Your task to perform on an android device: check android version Image 0: 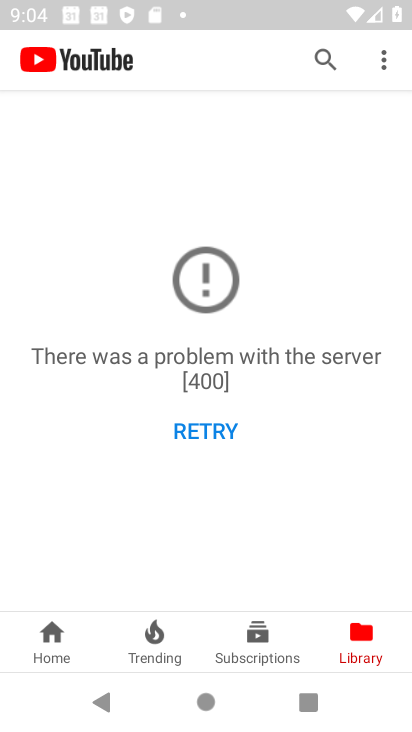
Step 0: press home button
Your task to perform on an android device: check android version Image 1: 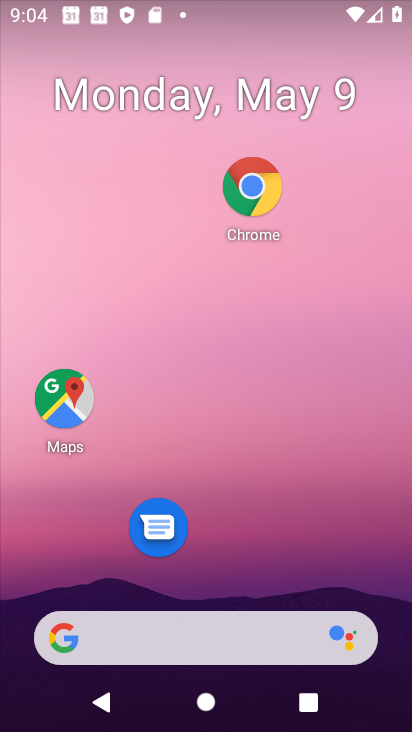
Step 1: drag from (204, 588) to (212, 22)
Your task to perform on an android device: check android version Image 2: 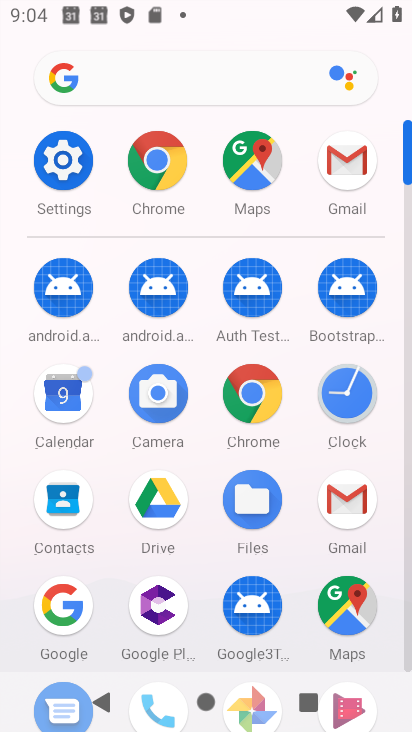
Step 2: click (58, 154)
Your task to perform on an android device: check android version Image 3: 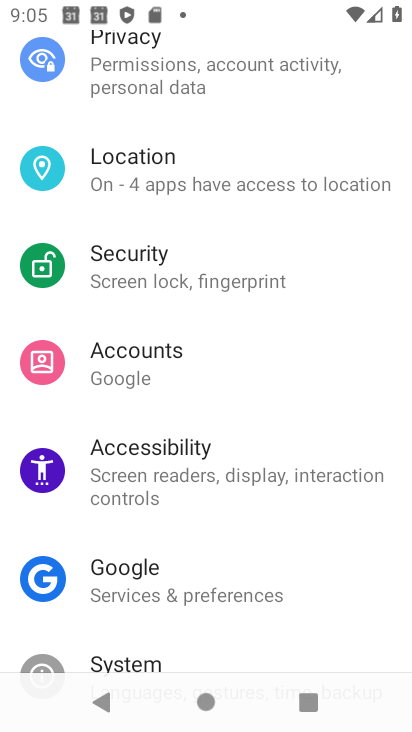
Step 3: click (196, 622)
Your task to perform on an android device: check android version Image 4: 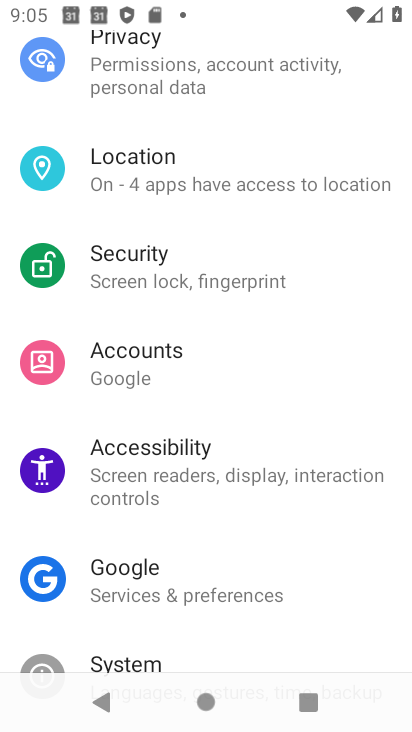
Step 4: drag from (215, 630) to (245, 310)
Your task to perform on an android device: check android version Image 5: 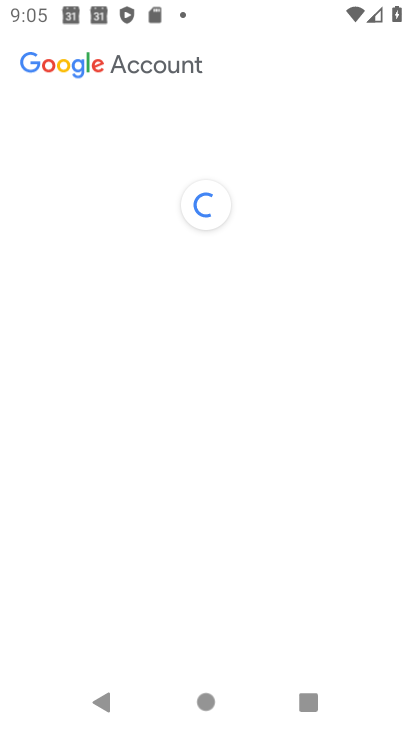
Step 5: drag from (251, 217) to (261, 168)
Your task to perform on an android device: check android version Image 6: 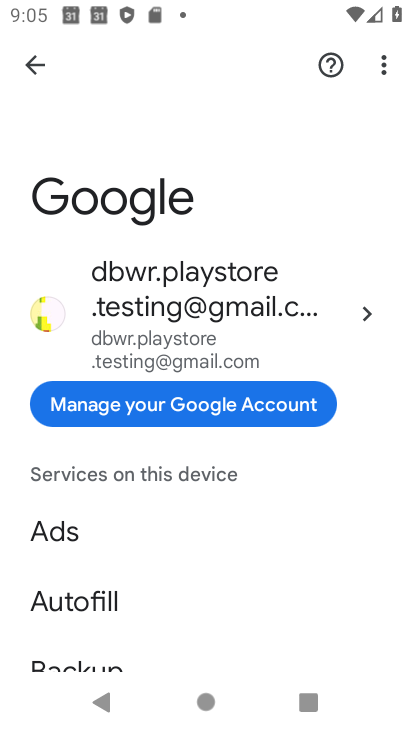
Step 6: click (41, 84)
Your task to perform on an android device: check android version Image 7: 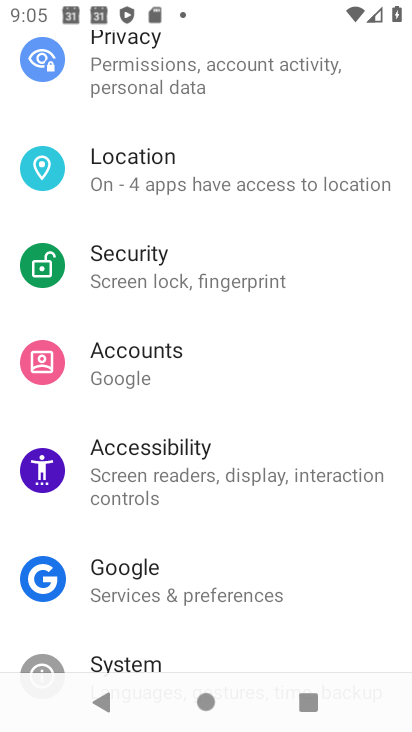
Step 7: drag from (199, 608) to (236, 167)
Your task to perform on an android device: check android version Image 8: 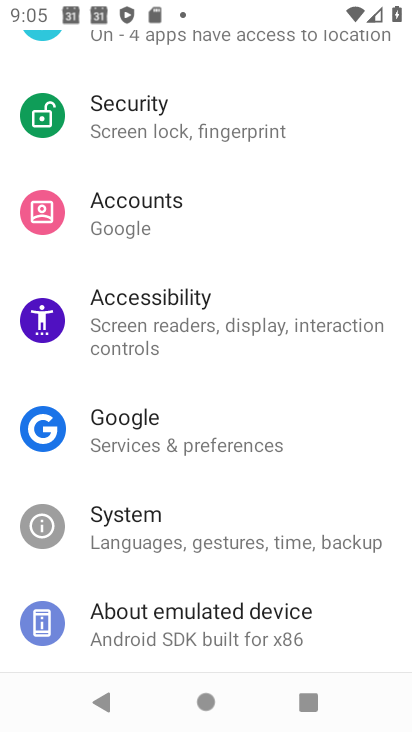
Step 8: click (181, 618)
Your task to perform on an android device: check android version Image 9: 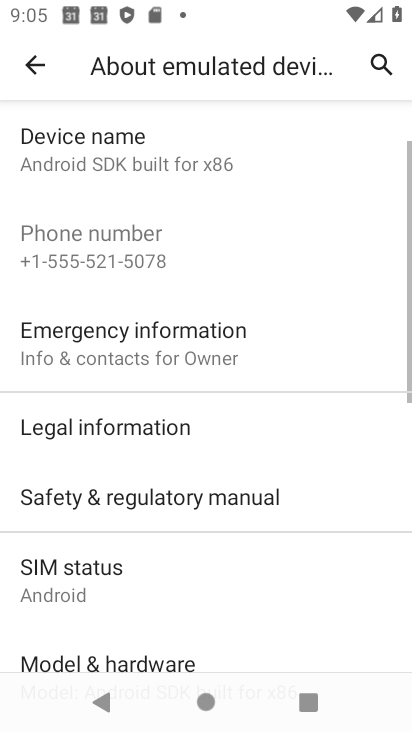
Step 9: drag from (153, 620) to (200, 149)
Your task to perform on an android device: check android version Image 10: 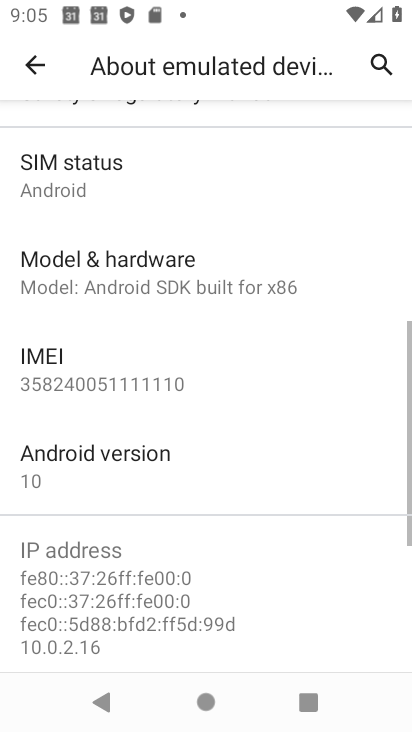
Step 10: click (73, 453)
Your task to perform on an android device: check android version Image 11: 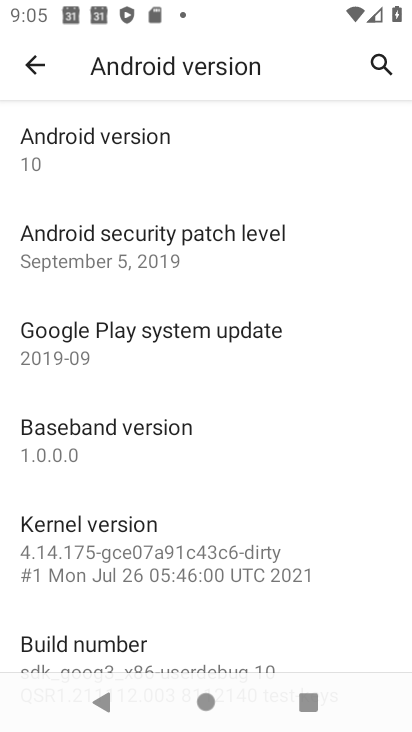
Step 11: task complete